Your task to perform on an android device: Open Reddit.com Image 0: 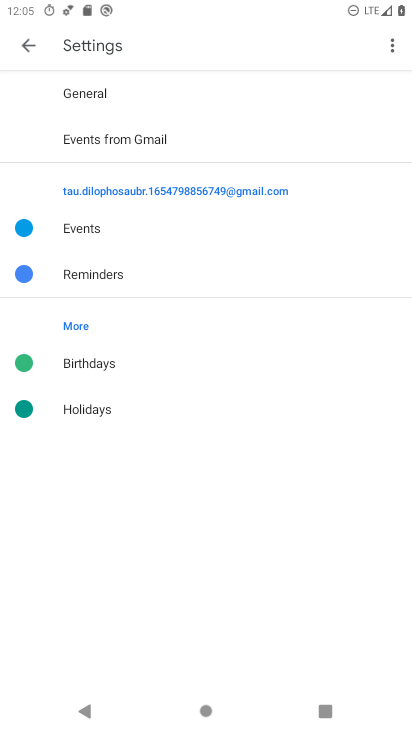
Step 0: press home button
Your task to perform on an android device: Open Reddit.com Image 1: 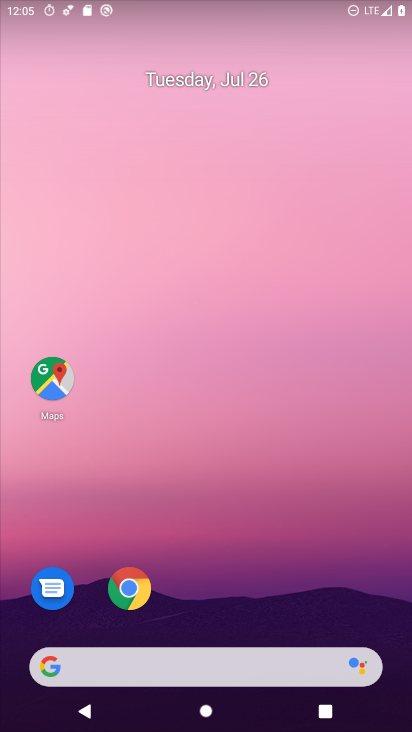
Step 1: click (223, 663)
Your task to perform on an android device: Open Reddit.com Image 2: 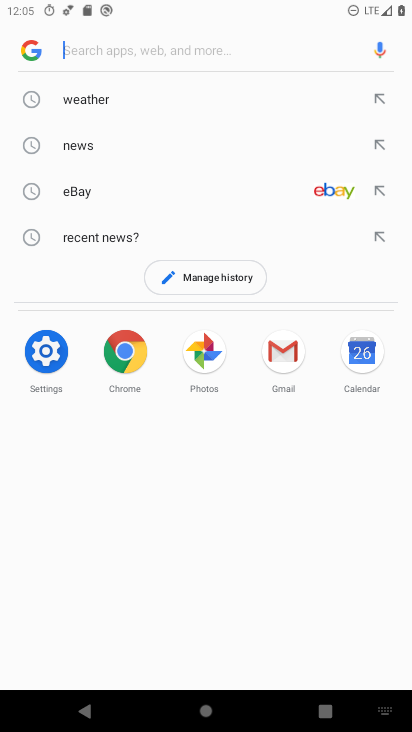
Step 2: click (172, 49)
Your task to perform on an android device: Open Reddit.com Image 3: 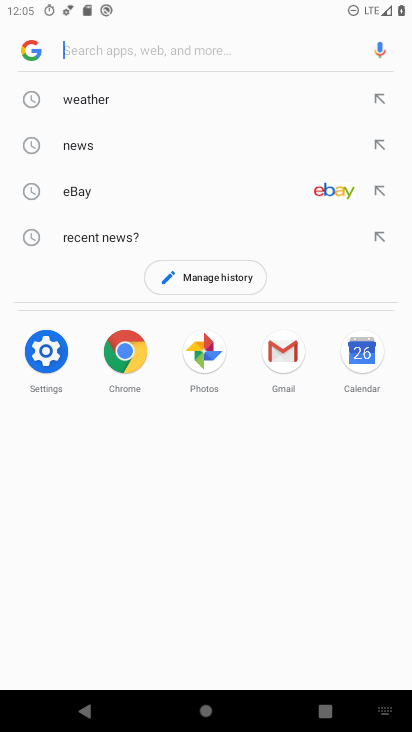
Step 3: type "Reddit.com"
Your task to perform on an android device: Open Reddit.com Image 4: 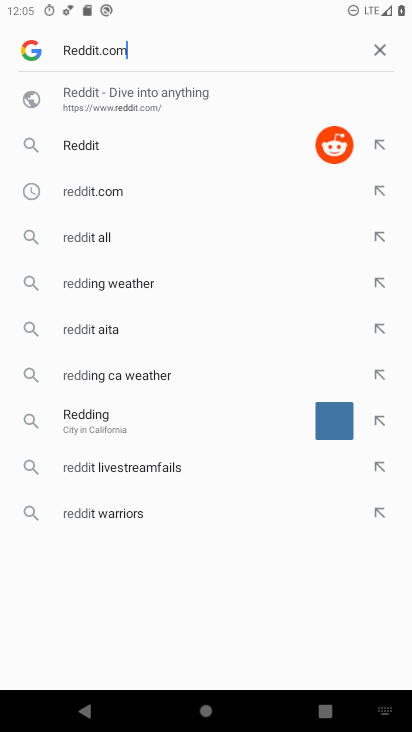
Step 4: type ""
Your task to perform on an android device: Open Reddit.com Image 5: 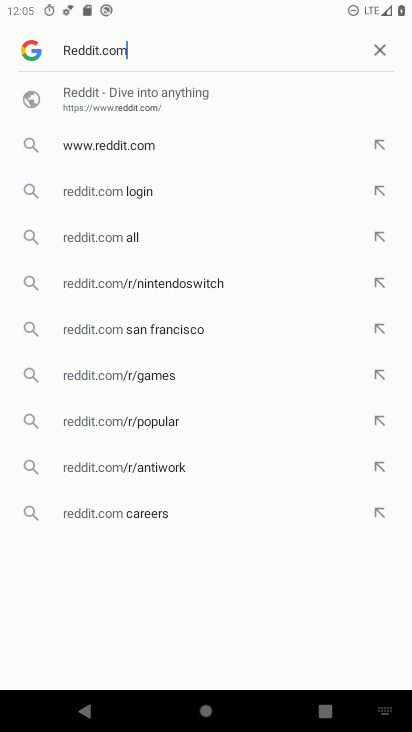
Step 5: click (143, 95)
Your task to perform on an android device: Open Reddit.com Image 6: 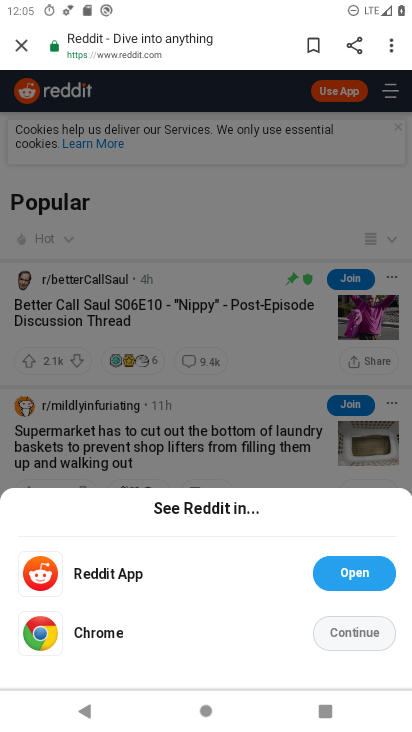
Step 6: task complete